Your task to perform on an android device: Go to sound settings Image 0: 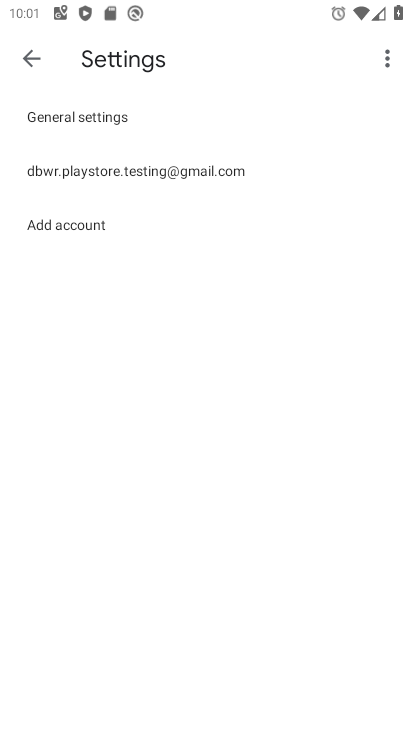
Step 0: press home button
Your task to perform on an android device: Go to sound settings Image 1: 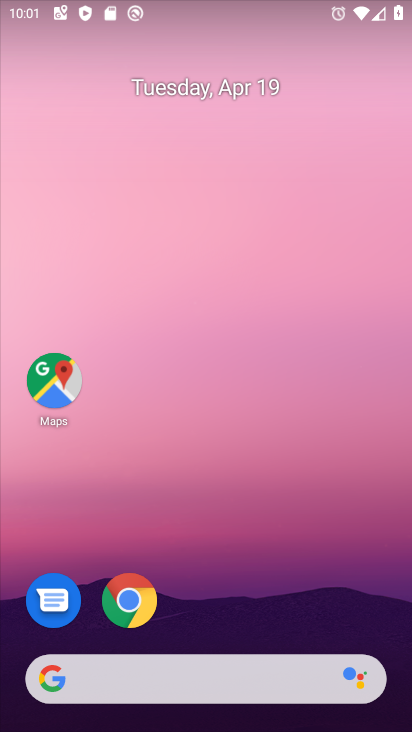
Step 1: drag from (255, 613) to (238, 248)
Your task to perform on an android device: Go to sound settings Image 2: 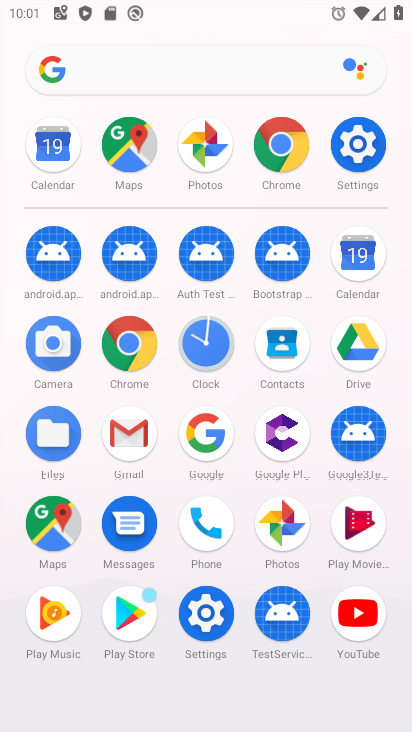
Step 2: click (355, 157)
Your task to perform on an android device: Go to sound settings Image 3: 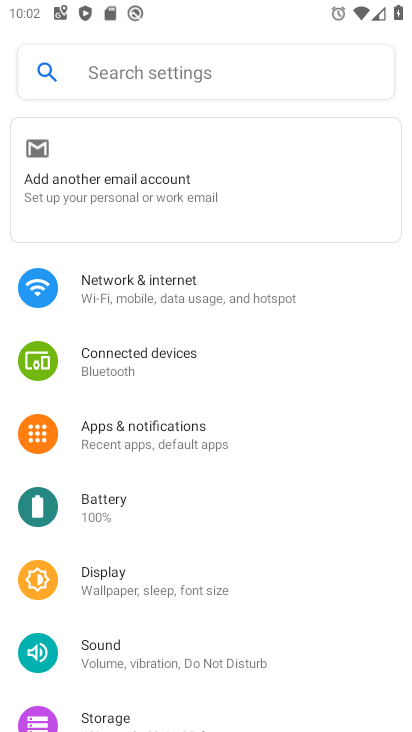
Step 3: click (143, 642)
Your task to perform on an android device: Go to sound settings Image 4: 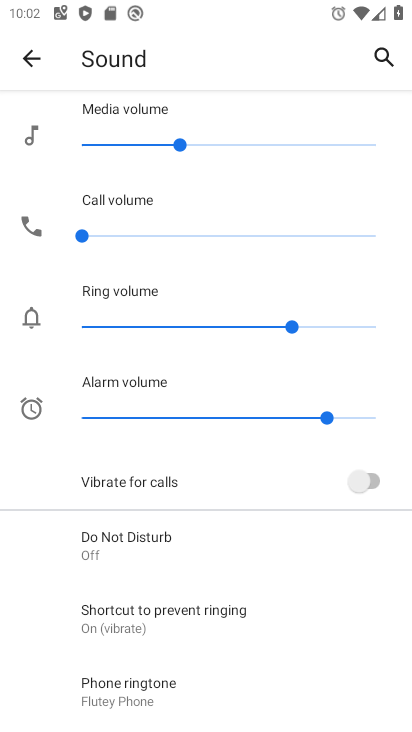
Step 4: task complete